Your task to perform on an android device: Open Google Chrome and open the bookmarks view Image 0: 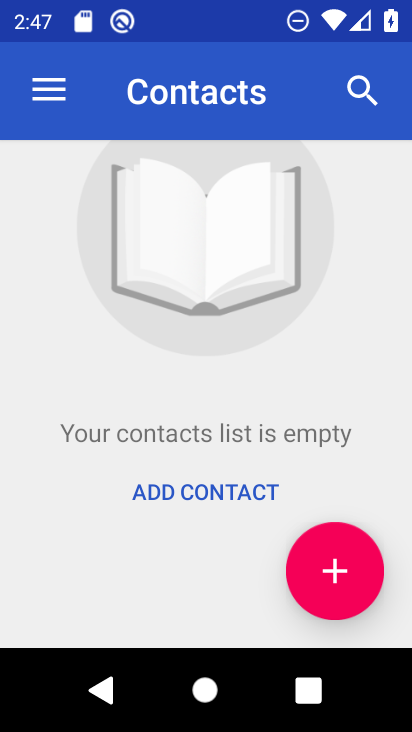
Step 0: press home button
Your task to perform on an android device: Open Google Chrome and open the bookmarks view Image 1: 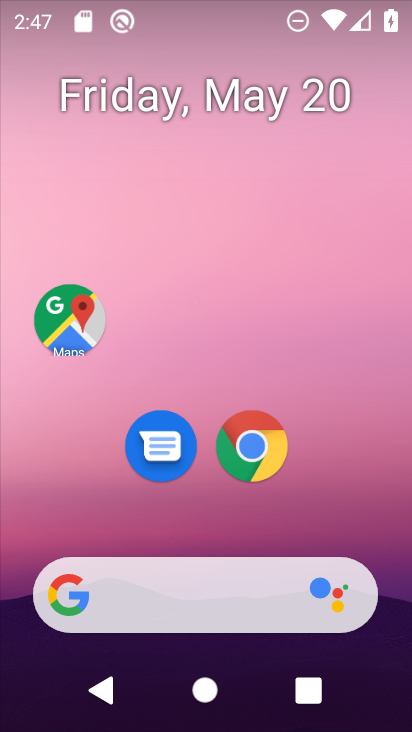
Step 1: click (255, 449)
Your task to perform on an android device: Open Google Chrome and open the bookmarks view Image 2: 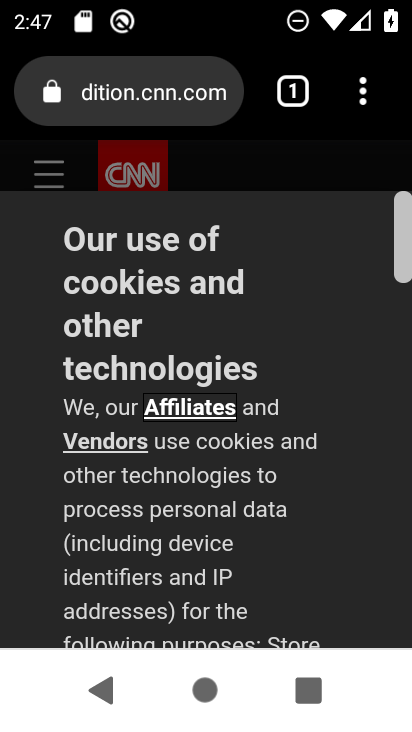
Step 2: click (369, 95)
Your task to perform on an android device: Open Google Chrome and open the bookmarks view Image 3: 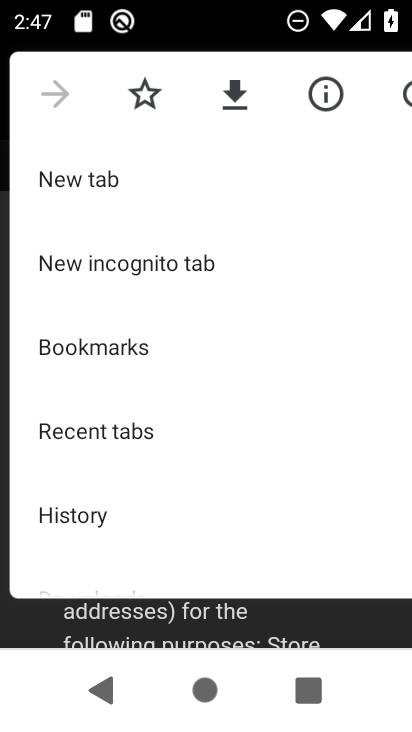
Step 3: click (86, 361)
Your task to perform on an android device: Open Google Chrome and open the bookmarks view Image 4: 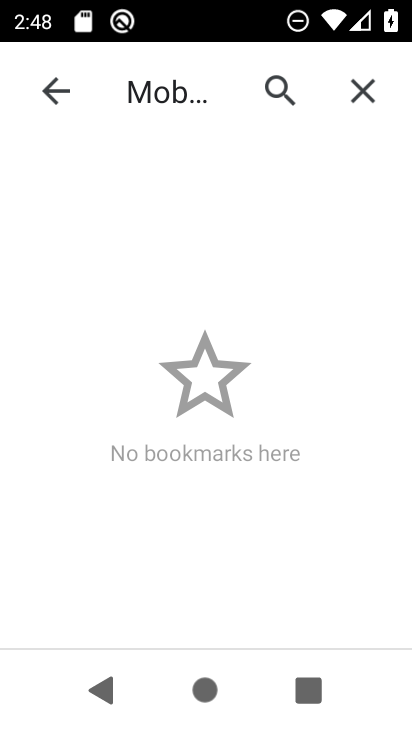
Step 4: task complete